Your task to perform on an android device: Open location settings Image 0: 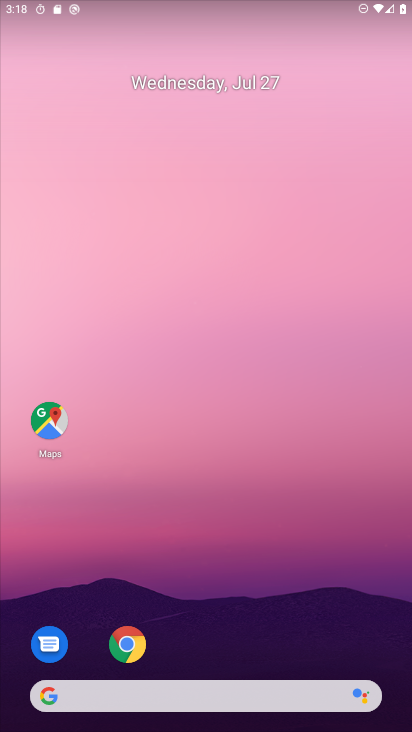
Step 0: drag from (235, 636) to (329, 44)
Your task to perform on an android device: Open location settings Image 1: 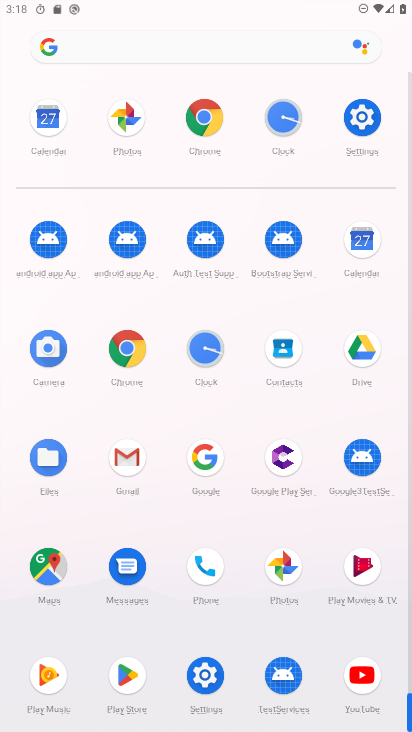
Step 1: click (207, 670)
Your task to perform on an android device: Open location settings Image 2: 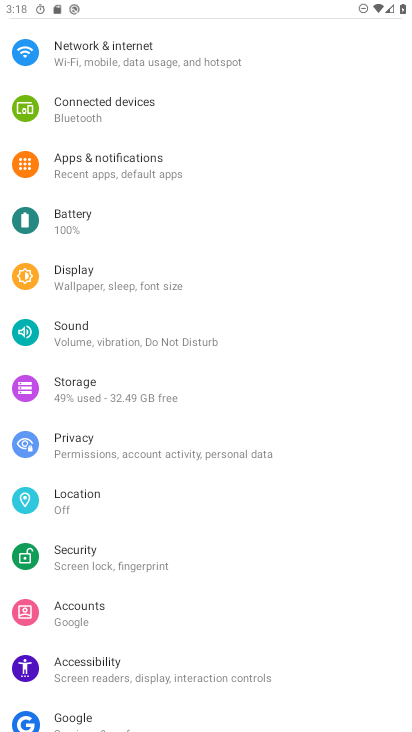
Step 2: click (113, 501)
Your task to perform on an android device: Open location settings Image 3: 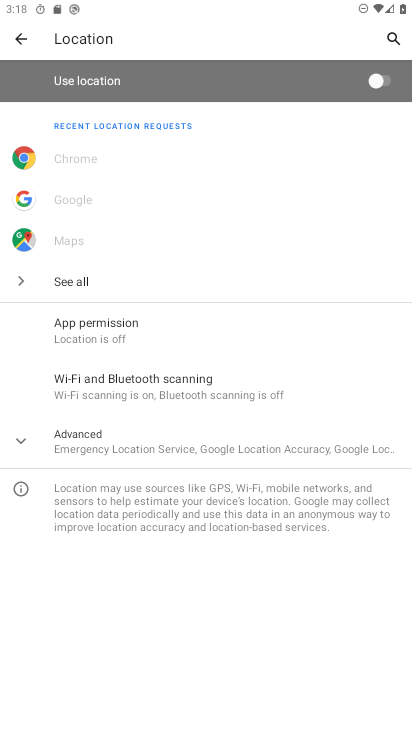
Step 3: task complete